Your task to perform on an android device: Go to sound settings Image 0: 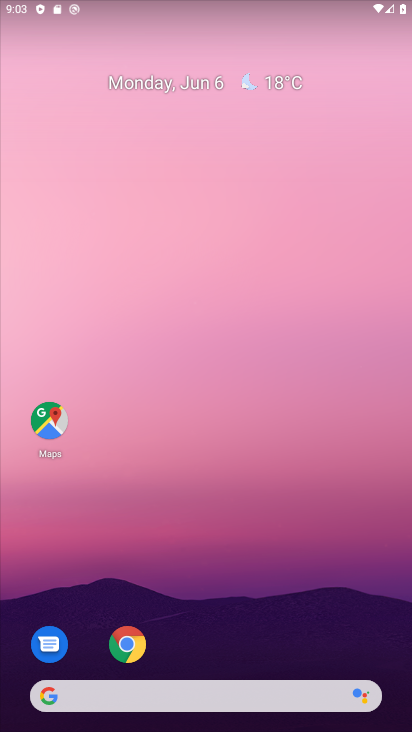
Step 0: drag from (303, 631) to (308, 251)
Your task to perform on an android device: Go to sound settings Image 1: 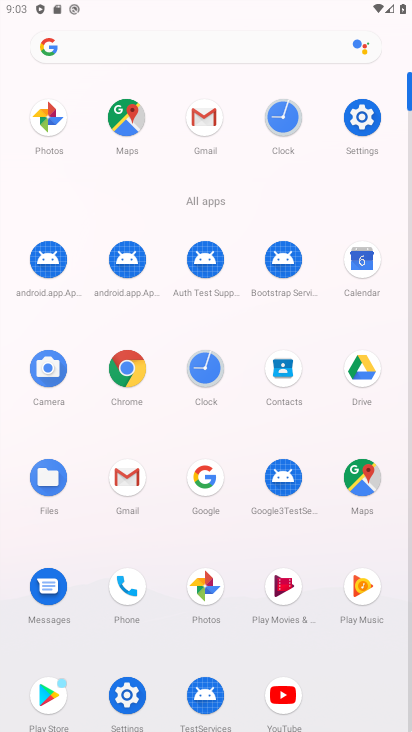
Step 1: click (378, 126)
Your task to perform on an android device: Go to sound settings Image 2: 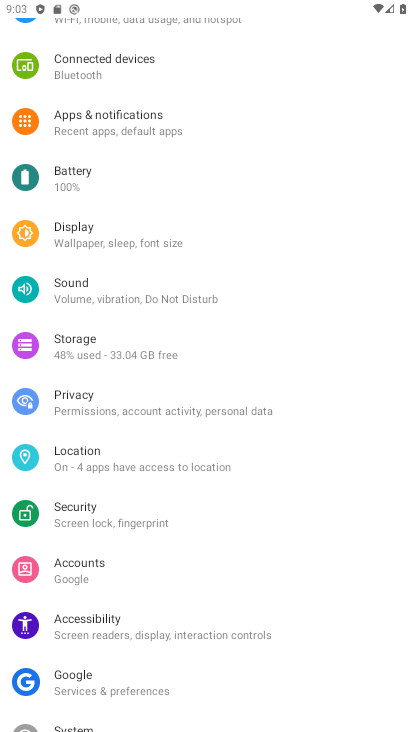
Step 2: click (119, 300)
Your task to perform on an android device: Go to sound settings Image 3: 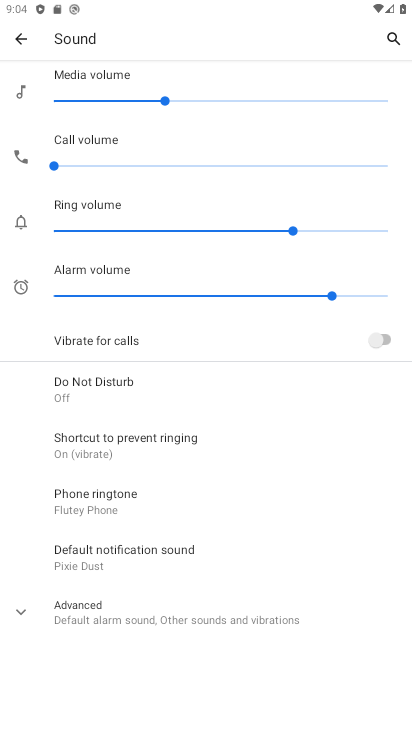
Step 3: task complete